Your task to perform on an android device: turn pop-ups on in chrome Image 0: 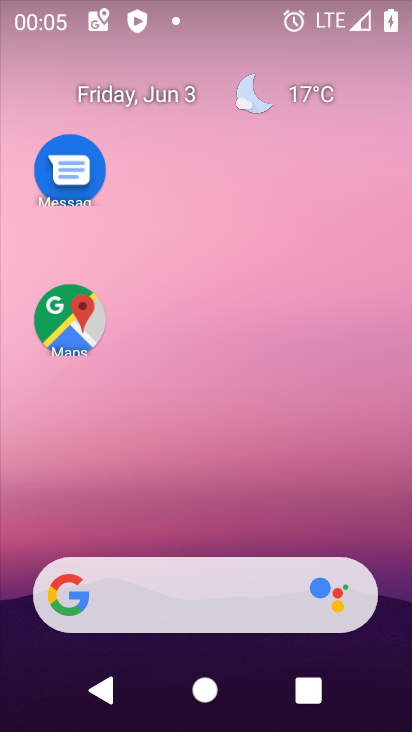
Step 0: drag from (248, 631) to (221, 104)
Your task to perform on an android device: turn pop-ups on in chrome Image 1: 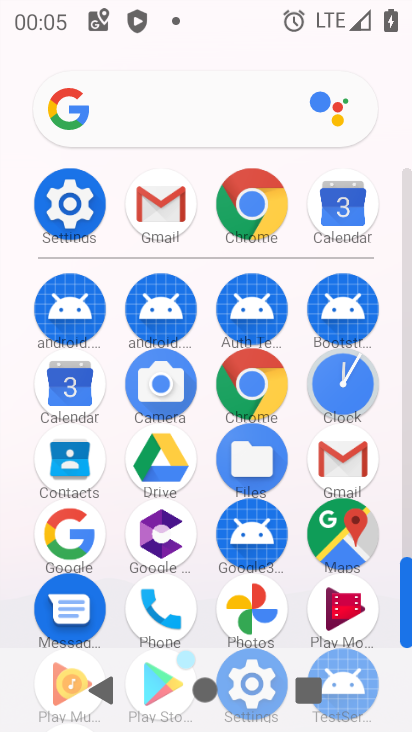
Step 1: click (263, 191)
Your task to perform on an android device: turn pop-ups on in chrome Image 2: 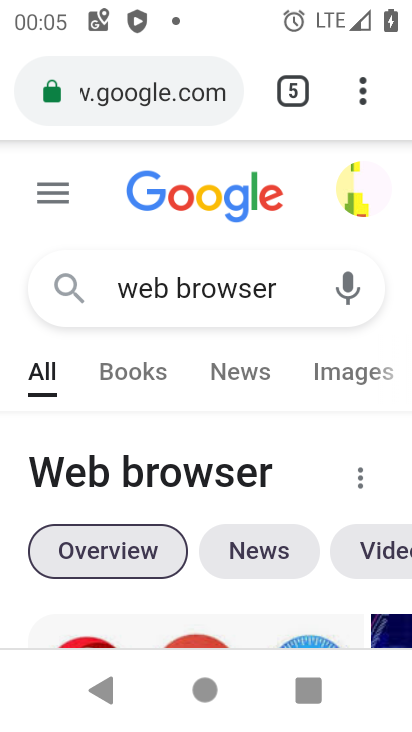
Step 2: drag from (353, 87) to (120, 484)
Your task to perform on an android device: turn pop-ups on in chrome Image 3: 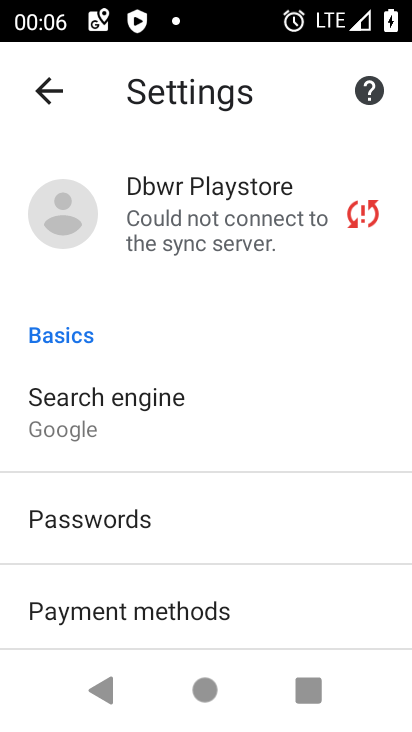
Step 3: drag from (356, 575) to (325, 210)
Your task to perform on an android device: turn pop-ups on in chrome Image 4: 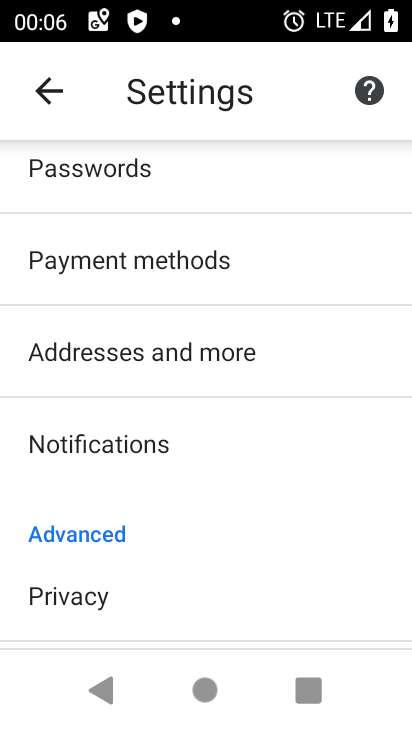
Step 4: drag from (225, 554) to (242, 224)
Your task to perform on an android device: turn pop-ups on in chrome Image 5: 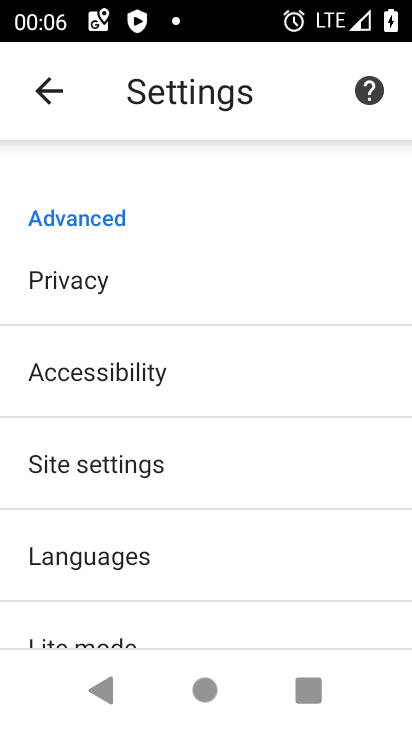
Step 5: click (207, 458)
Your task to perform on an android device: turn pop-ups on in chrome Image 6: 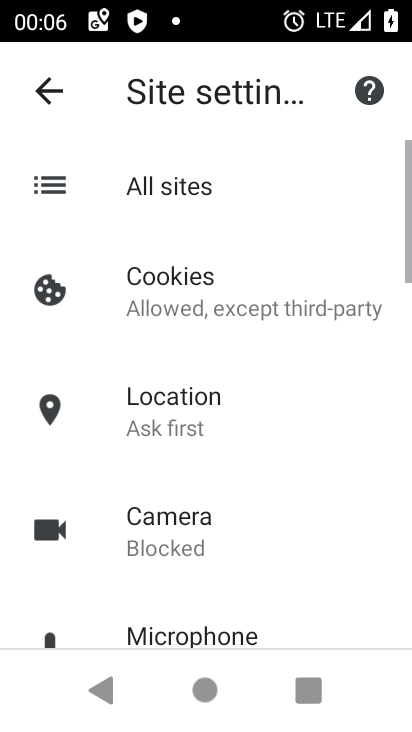
Step 6: drag from (250, 603) to (235, 174)
Your task to perform on an android device: turn pop-ups on in chrome Image 7: 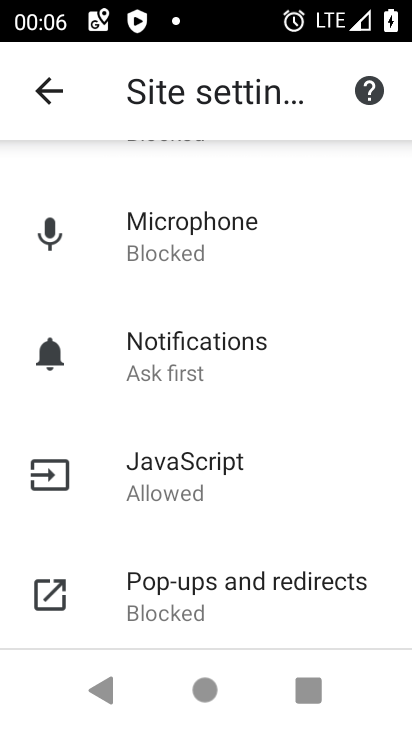
Step 7: click (193, 605)
Your task to perform on an android device: turn pop-ups on in chrome Image 8: 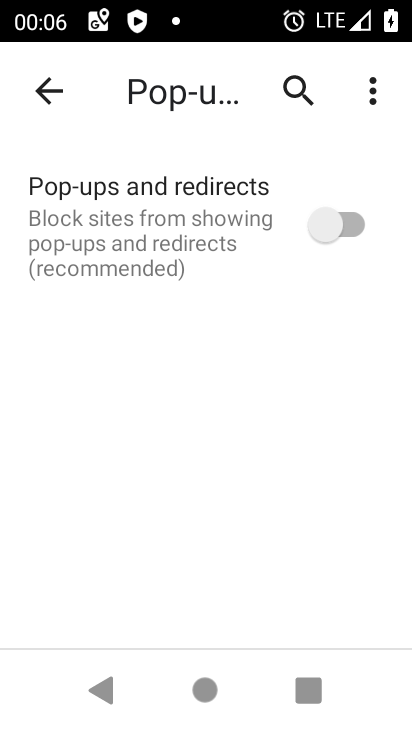
Step 8: click (164, 283)
Your task to perform on an android device: turn pop-ups on in chrome Image 9: 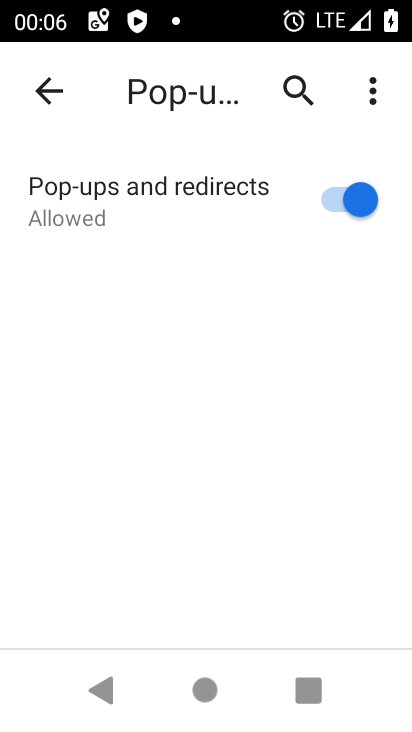
Step 9: task complete